Your task to perform on an android device: turn off priority inbox in the gmail app Image 0: 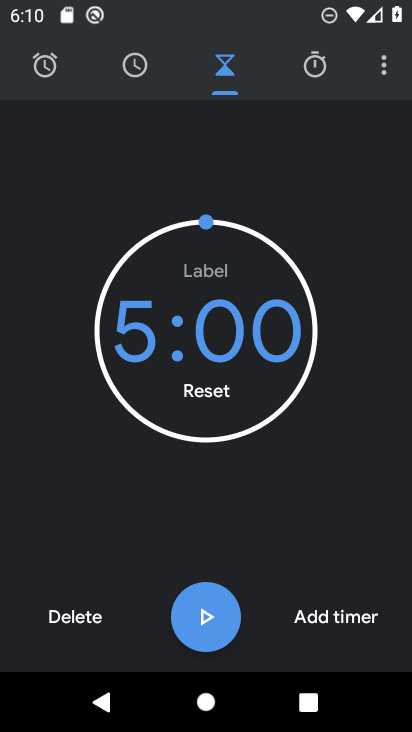
Step 0: press home button
Your task to perform on an android device: turn off priority inbox in the gmail app Image 1: 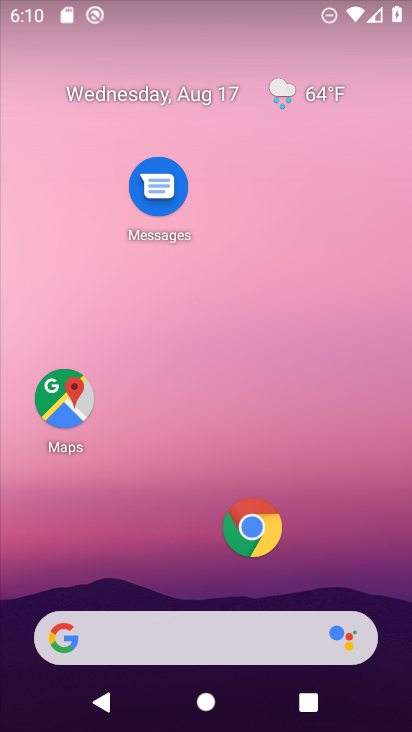
Step 1: drag from (163, 616) to (163, 330)
Your task to perform on an android device: turn off priority inbox in the gmail app Image 2: 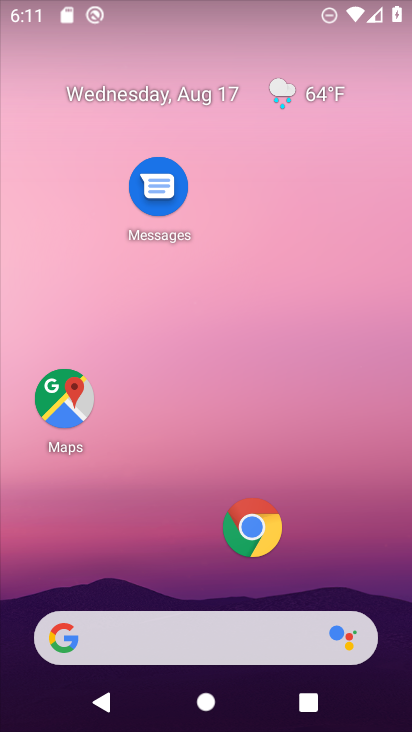
Step 2: drag from (233, 543) to (233, 234)
Your task to perform on an android device: turn off priority inbox in the gmail app Image 3: 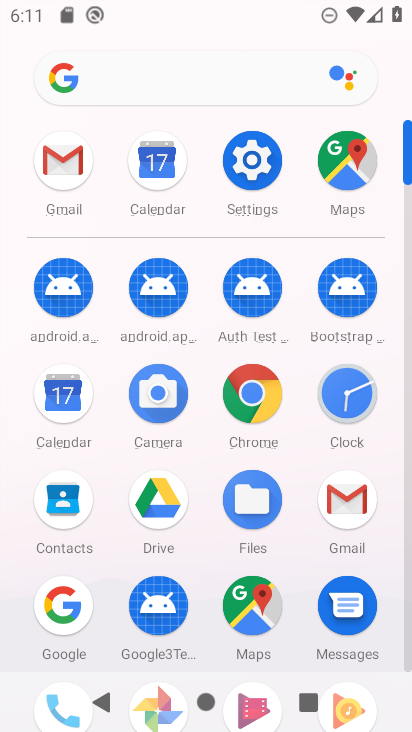
Step 3: click (336, 510)
Your task to perform on an android device: turn off priority inbox in the gmail app Image 4: 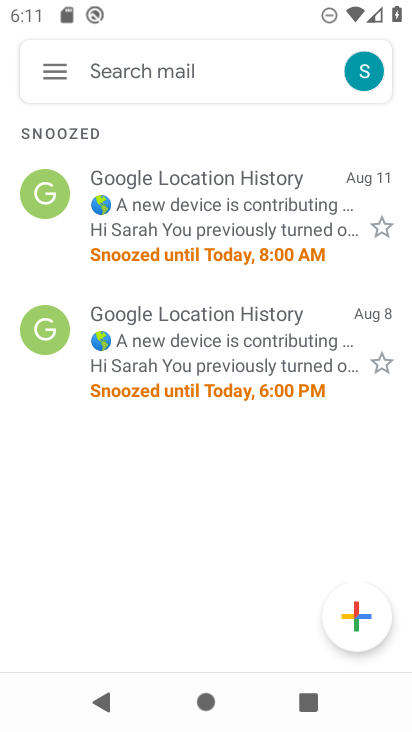
Step 4: click (57, 68)
Your task to perform on an android device: turn off priority inbox in the gmail app Image 5: 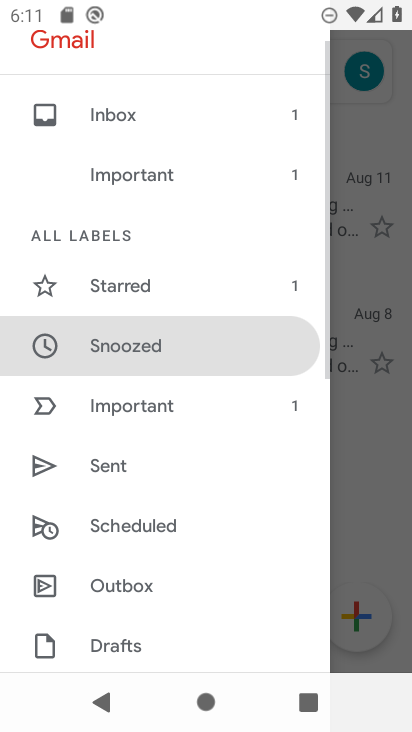
Step 5: drag from (103, 624) to (101, 276)
Your task to perform on an android device: turn off priority inbox in the gmail app Image 6: 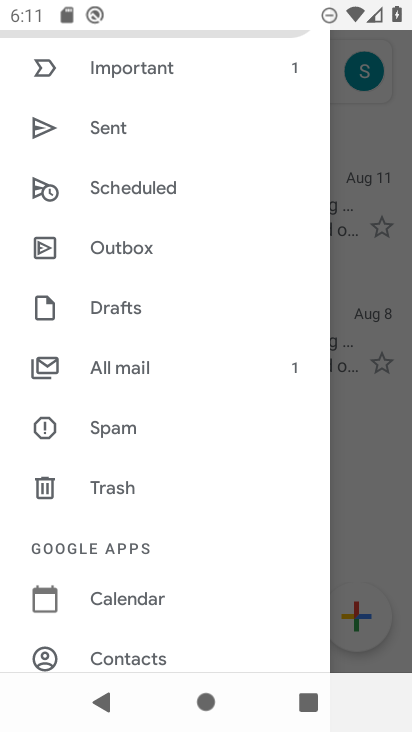
Step 6: drag from (105, 608) to (104, 258)
Your task to perform on an android device: turn off priority inbox in the gmail app Image 7: 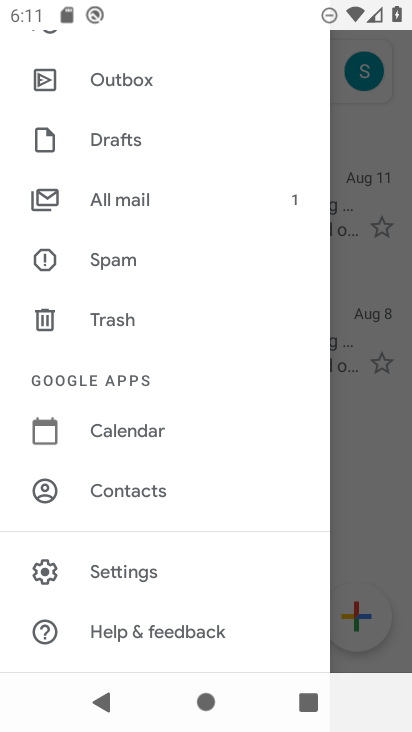
Step 7: click (100, 578)
Your task to perform on an android device: turn off priority inbox in the gmail app Image 8: 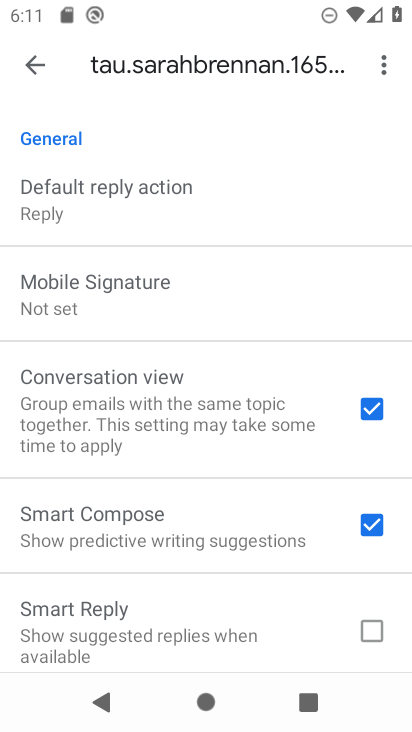
Step 8: drag from (74, 164) to (67, 591)
Your task to perform on an android device: turn off priority inbox in the gmail app Image 9: 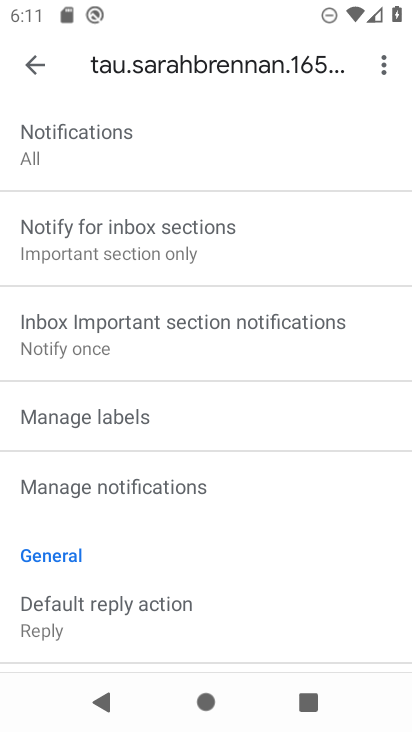
Step 9: drag from (88, 145) to (47, 650)
Your task to perform on an android device: turn off priority inbox in the gmail app Image 10: 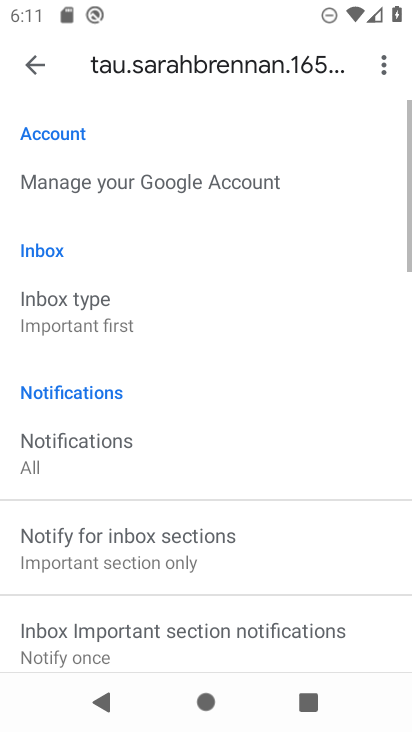
Step 10: click (50, 316)
Your task to perform on an android device: turn off priority inbox in the gmail app Image 11: 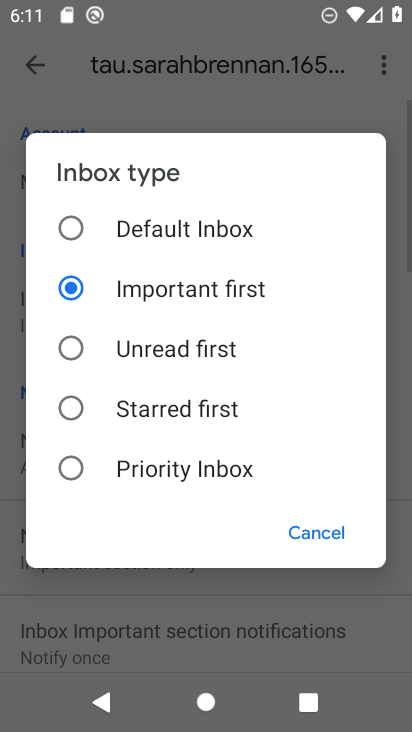
Step 11: click (135, 290)
Your task to perform on an android device: turn off priority inbox in the gmail app Image 12: 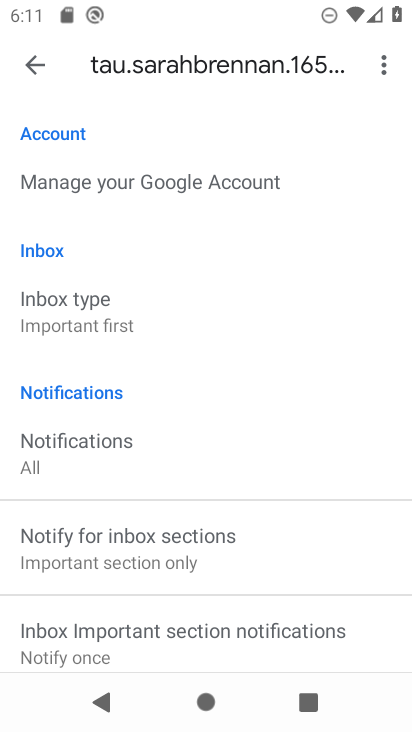
Step 12: task complete